Your task to perform on an android device: Turn on the flashlight Image 0: 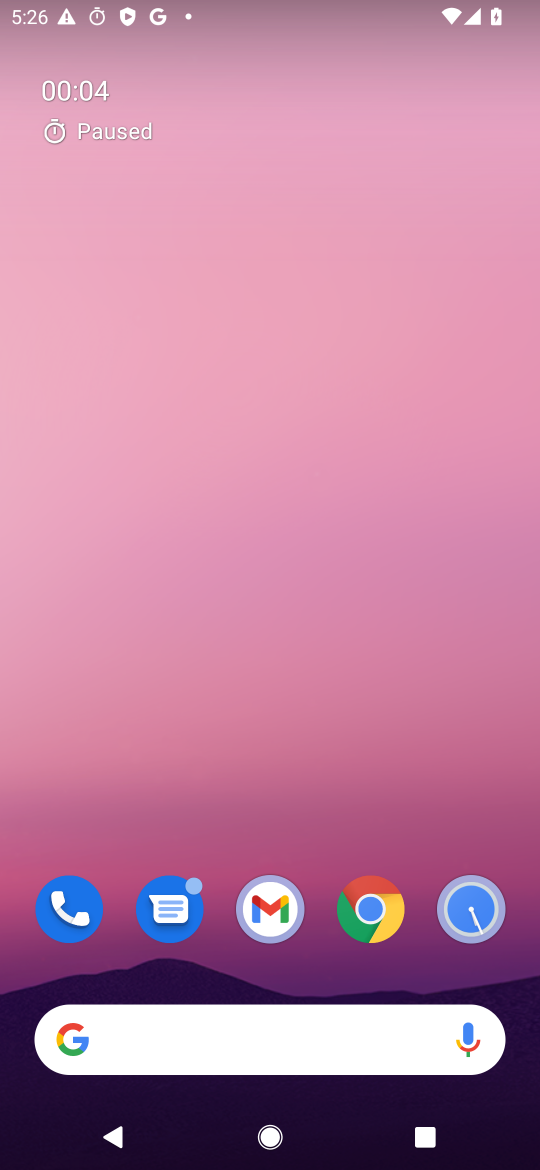
Step 0: drag from (325, 11) to (246, 792)
Your task to perform on an android device: Turn on the flashlight Image 1: 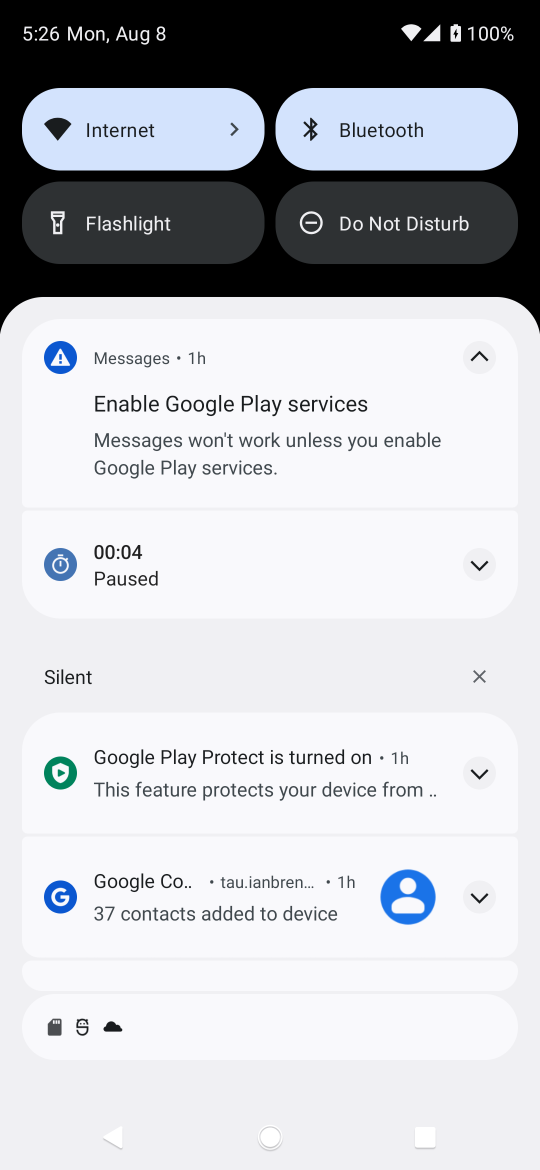
Step 1: task complete